Your task to perform on an android device: Open the web browser Image 0: 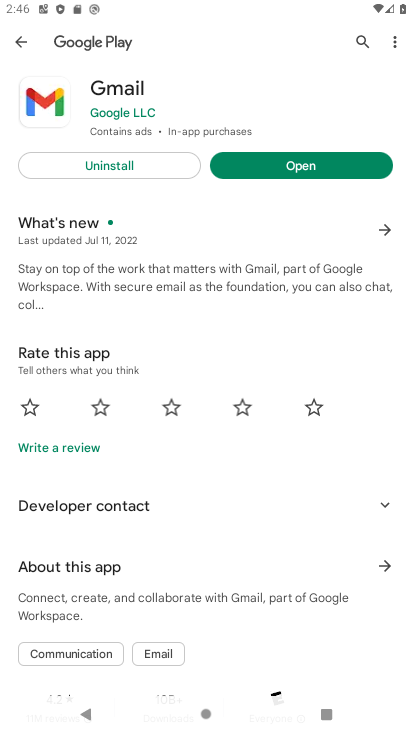
Step 0: press home button
Your task to perform on an android device: Open the web browser Image 1: 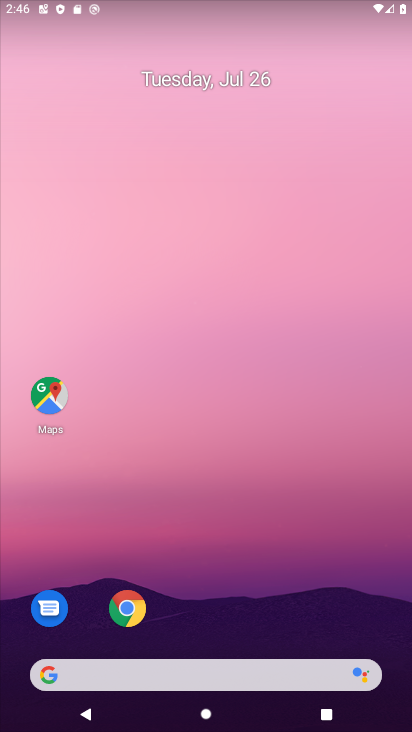
Step 1: click (145, 607)
Your task to perform on an android device: Open the web browser Image 2: 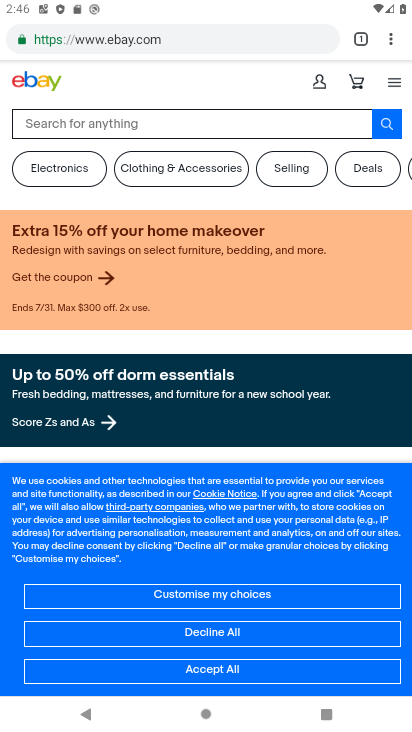
Step 2: task complete